Your task to perform on an android device: Open the Play Movies app and select the watchlist tab. Image 0: 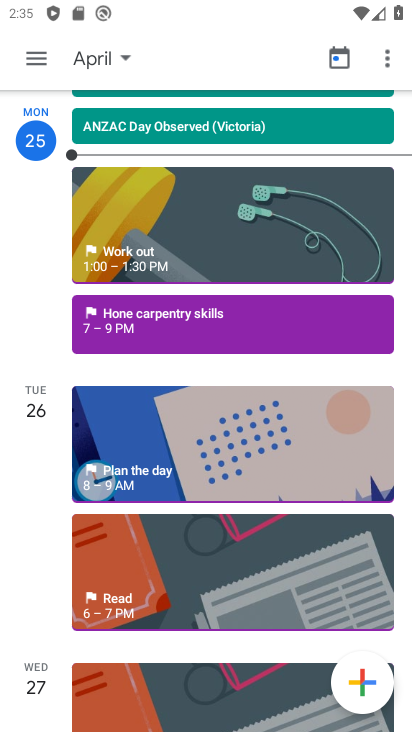
Step 0: press home button
Your task to perform on an android device: Open the Play Movies app and select the watchlist tab. Image 1: 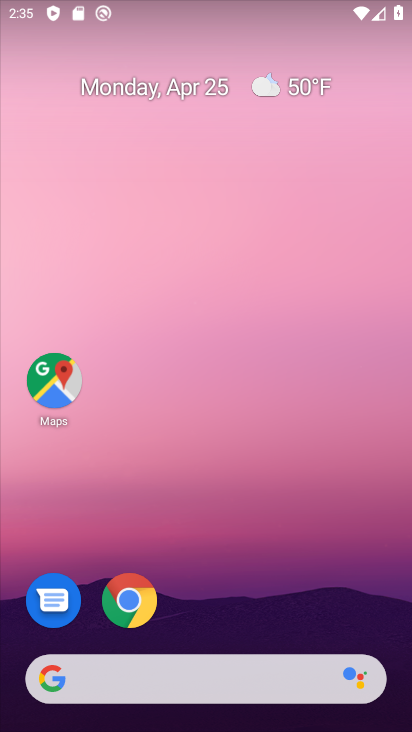
Step 1: drag from (361, 539) to (365, 141)
Your task to perform on an android device: Open the Play Movies app and select the watchlist tab. Image 2: 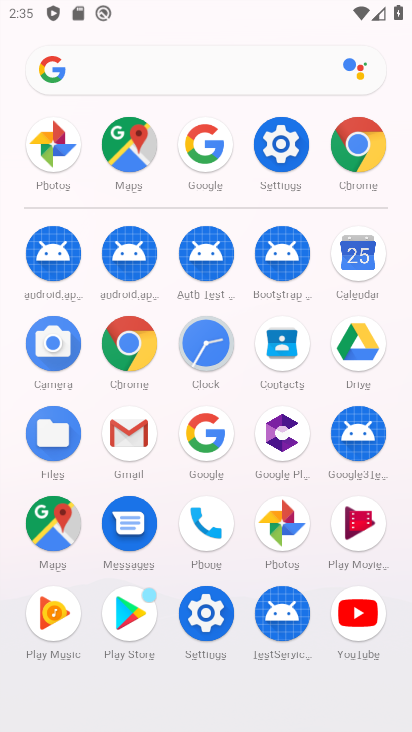
Step 2: click (353, 536)
Your task to perform on an android device: Open the Play Movies app and select the watchlist tab. Image 3: 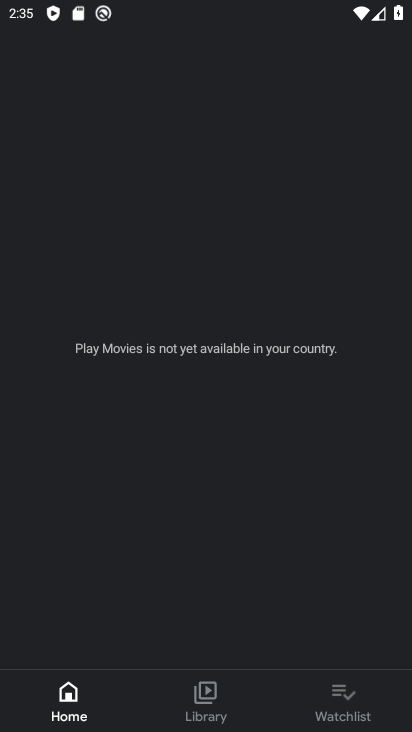
Step 3: click (339, 682)
Your task to perform on an android device: Open the Play Movies app and select the watchlist tab. Image 4: 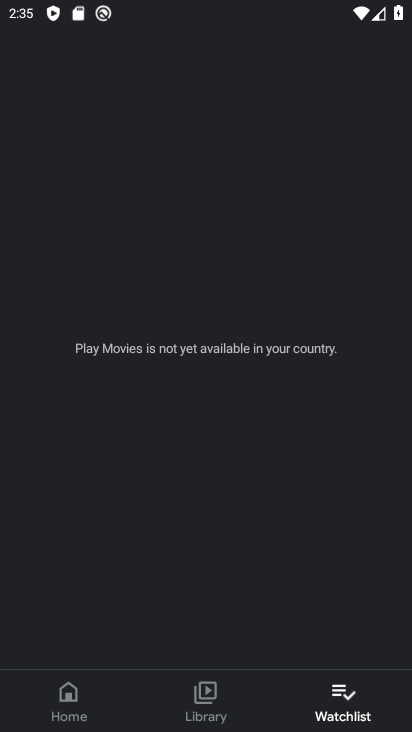
Step 4: task complete